Your task to perform on an android device: Search for pizza restaurants on Maps Image 0: 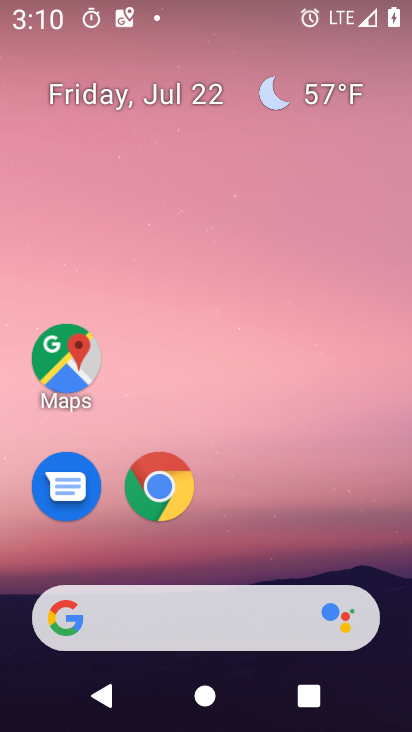
Step 0: drag from (359, 539) to (364, 133)
Your task to perform on an android device: Search for pizza restaurants on Maps Image 1: 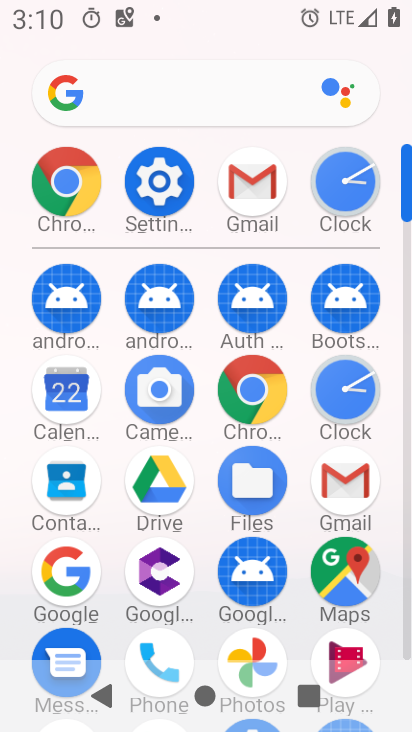
Step 1: drag from (391, 540) to (391, 368)
Your task to perform on an android device: Search for pizza restaurants on Maps Image 2: 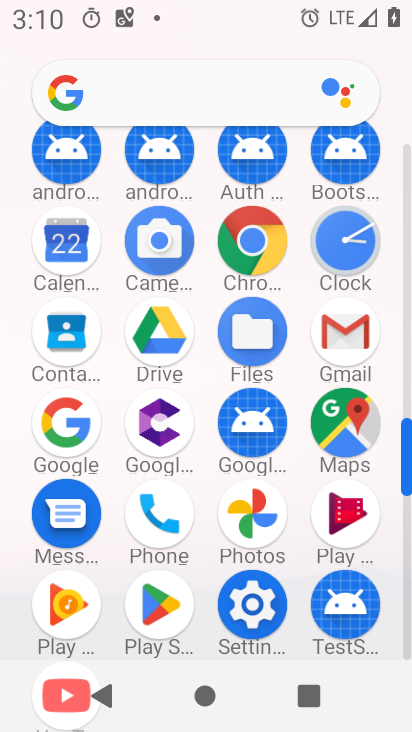
Step 2: click (363, 428)
Your task to perform on an android device: Search for pizza restaurants on Maps Image 3: 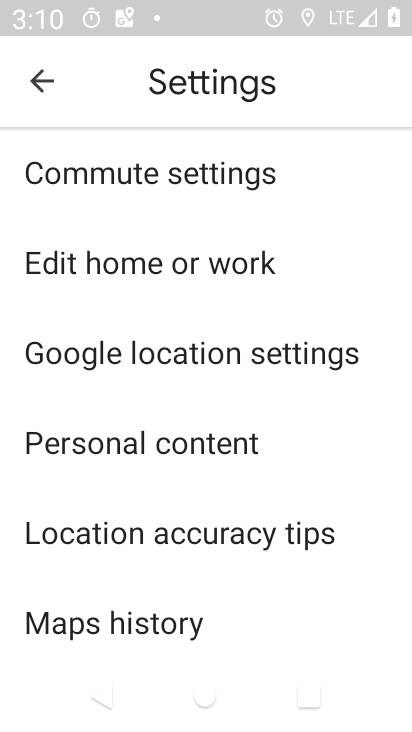
Step 3: press back button
Your task to perform on an android device: Search for pizza restaurants on Maps Image 4: 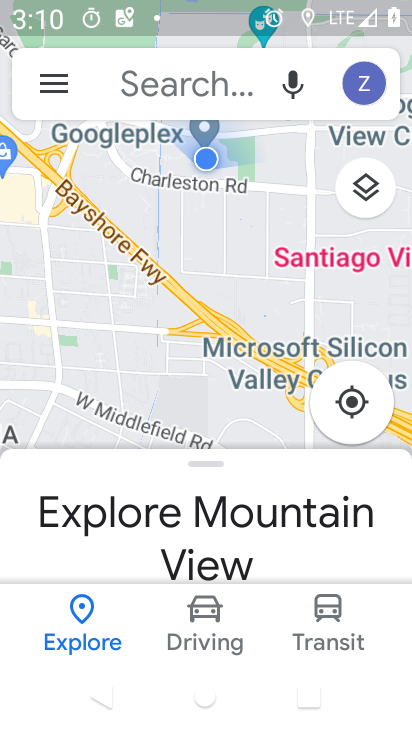
Step 4: click (218, 84)
Your task to perform on an android device: Search for pizza restaurants on Maps Image 5: 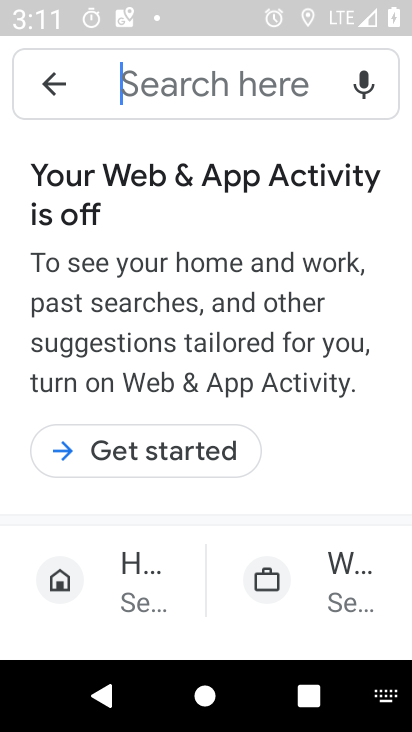
Step 5: type "pizza restaurants"
Your task to perform on an android device: Search for pizza restaurants on Maps Image 6: 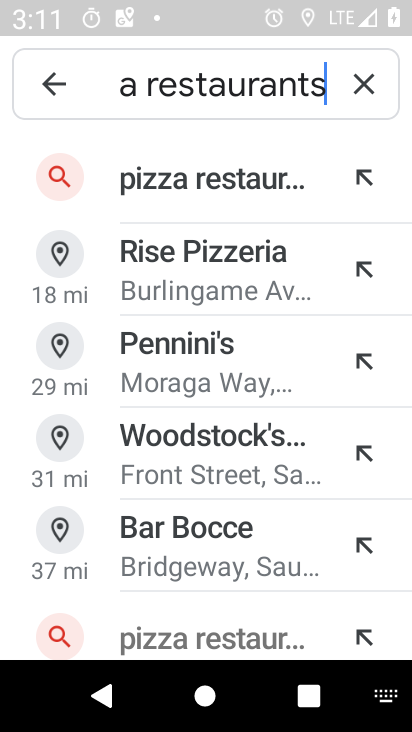
Step 6: click (216, 190)
Your task to perform on an android device: Search for pizza restaurants on Maps Image 7: 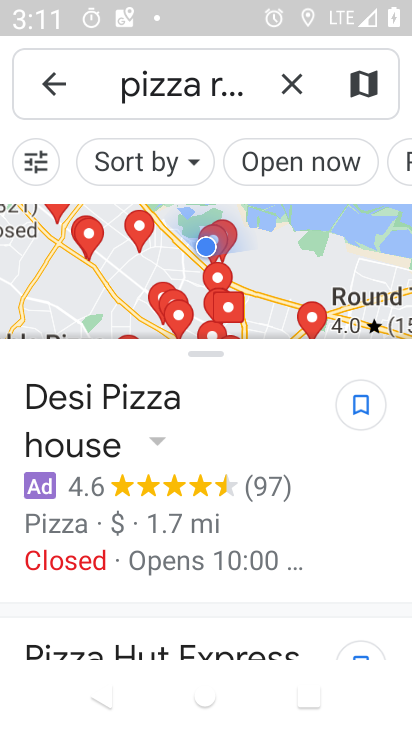
Step 7: task complete